Your task to perform on an android device: delete a single message in the gmail app Image 0: 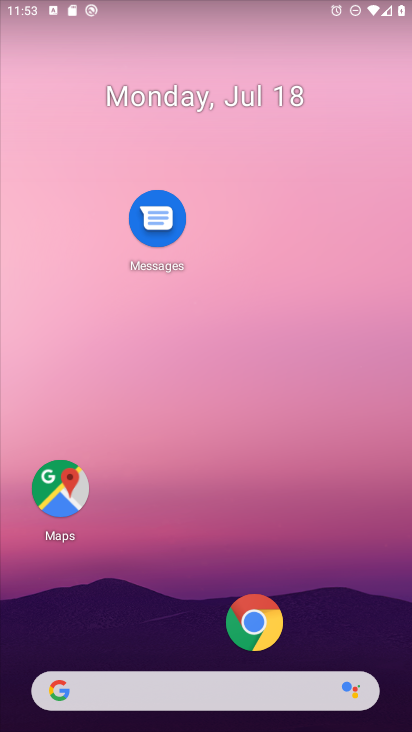
Step 0: drag from (198, 701) to (191, 235)
Your task to perform on an android device: delete a single message in the gmail app Image 1: 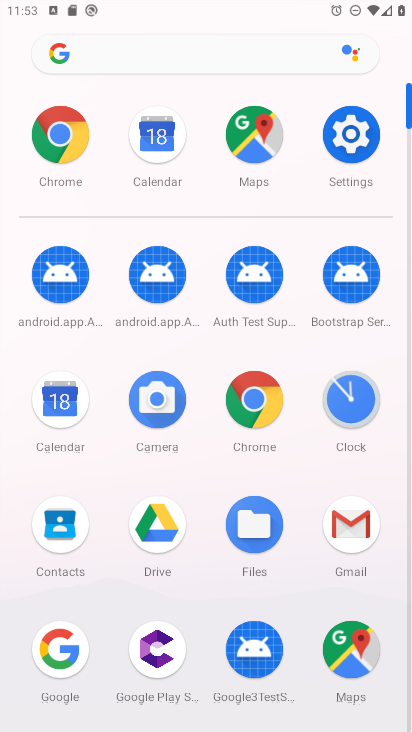
Step 1: click (363, 495)
Your task to perform on an android device: delete a single message in the gmail app Image 2: 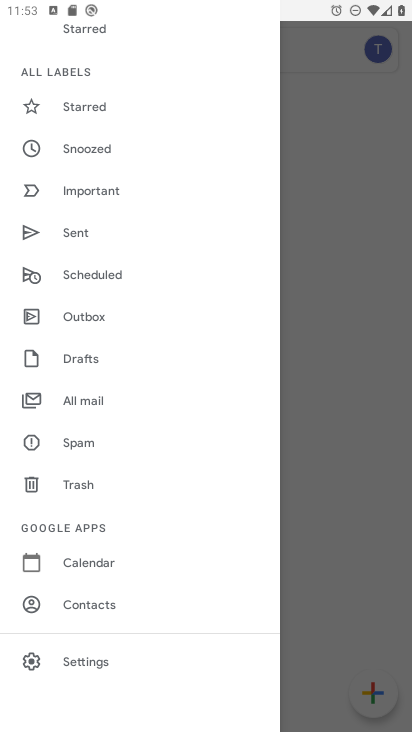
Step 2: press back button
Your task to perform on an android device: delete a single message in the gmail app Image 3: 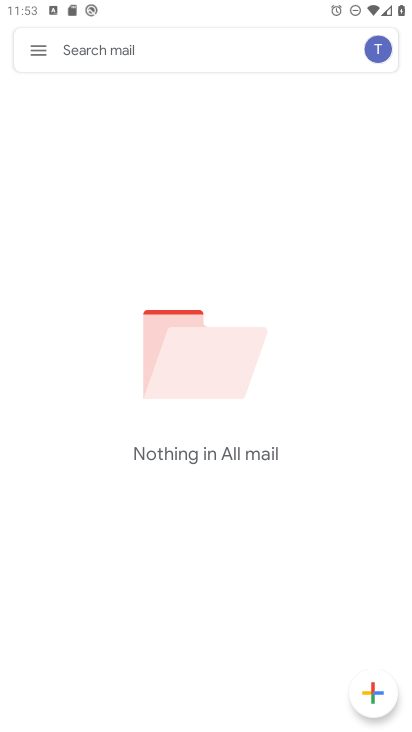
Step 3: click (45, 47)
Your task to perform on an android device: delete a single message in the gmail app Image 4: 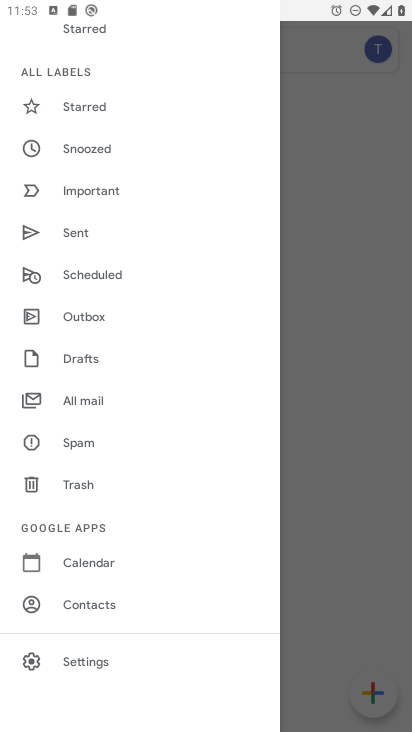
Step 4: click (102, 402)
Your task to perform on an android device: delete a single message in the gmail app Image 5: 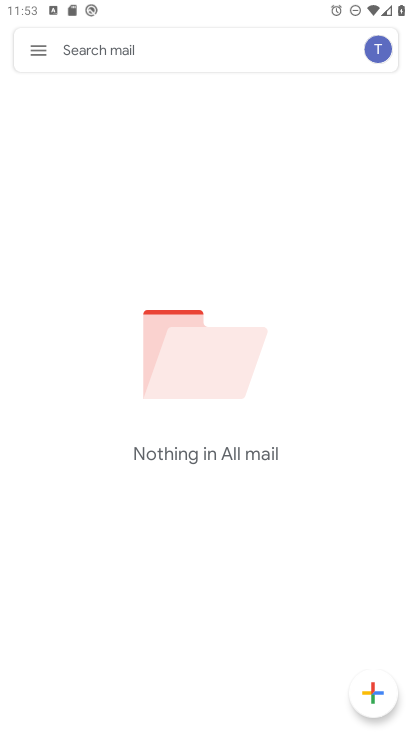
Step 5: task complete